Your task to perform on an android device: change notification settings in the gmail app Image 0: 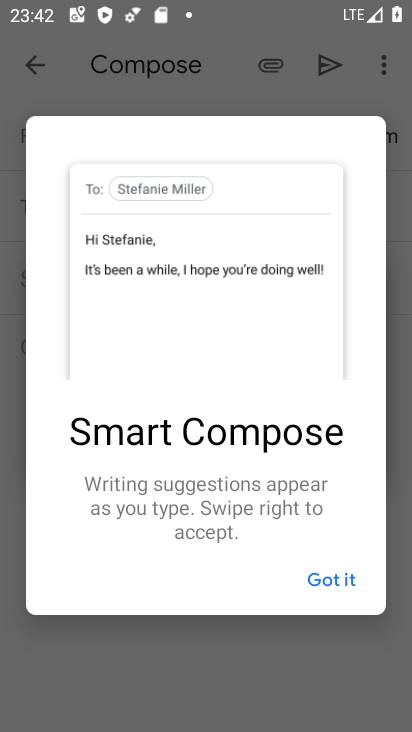
Step 0: press home button
Your task to perform on an android device: change notification settings in the gmail app Image 1: 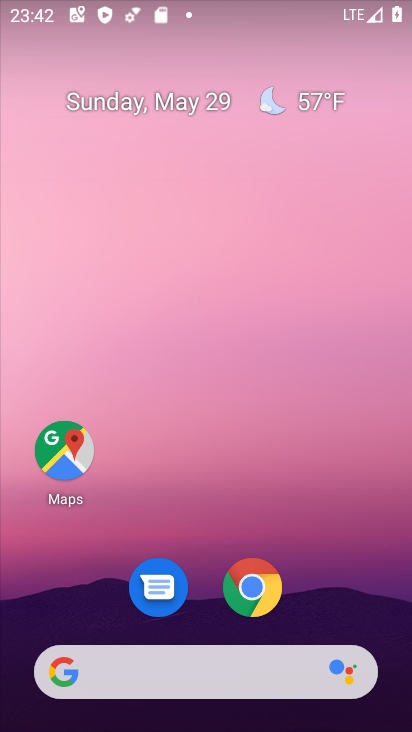
Step 1: drag from (385, 621) to (264, 130)
Your task to perform on an android device: change notification settings in the gmail app Image 2: 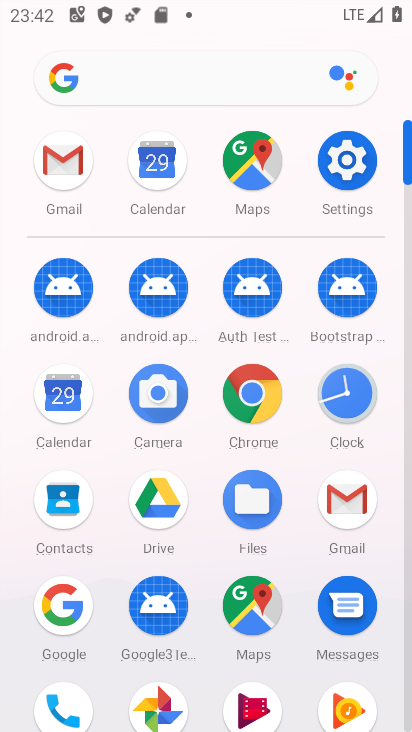
Step 2: click (68, 167)
Your task to perform on an android device: change notification settings in the gmail app Image 3: 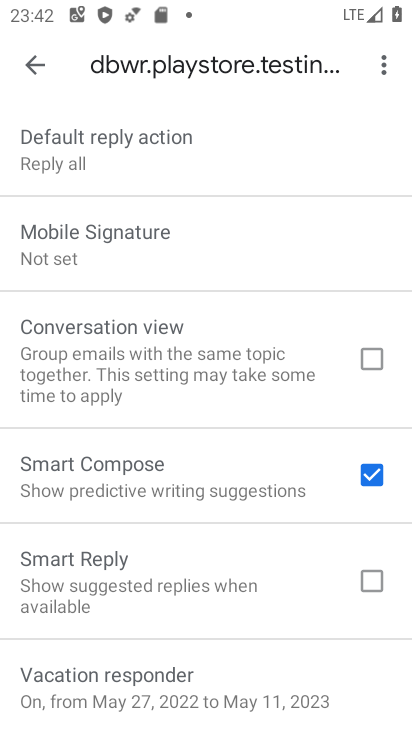
Step 3: drag from (186, 190) to (192, 494)
Your task to perform on an android device: change notification settings in the gmail app Image 4: 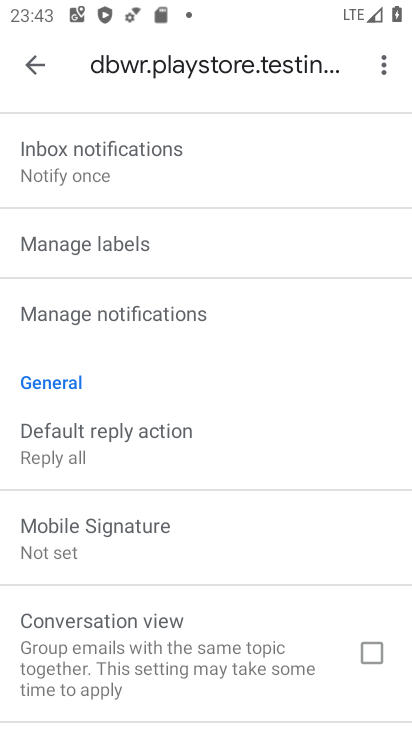
Step 4: click (248, 319)
Your task to perform on an android device: change notification settings in the gmail app Image 5: 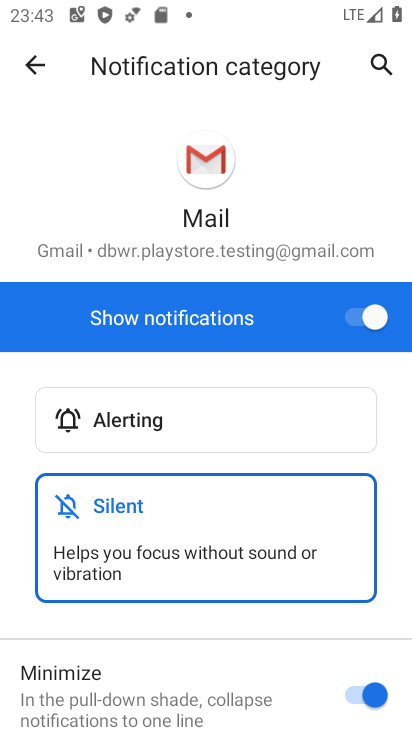
Step 5: drag from (320, 639) to (293, 502)
Your task to perform on an android device: change notification settings in the gmail app Image 6: 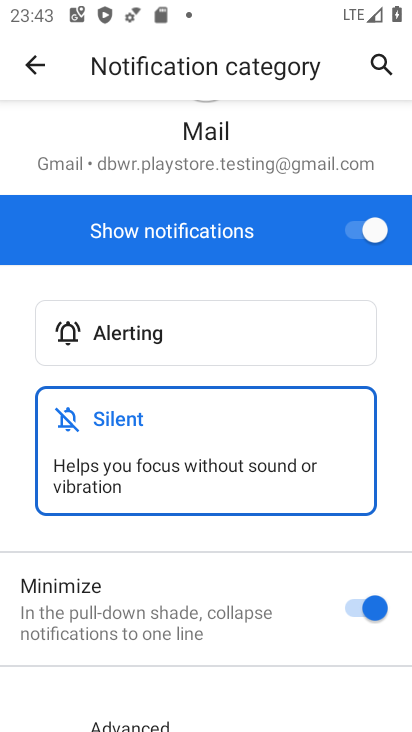
Step 6: click (279, 348)
Your task to perform on an android device: change notification settings in the gmail app Image 7: 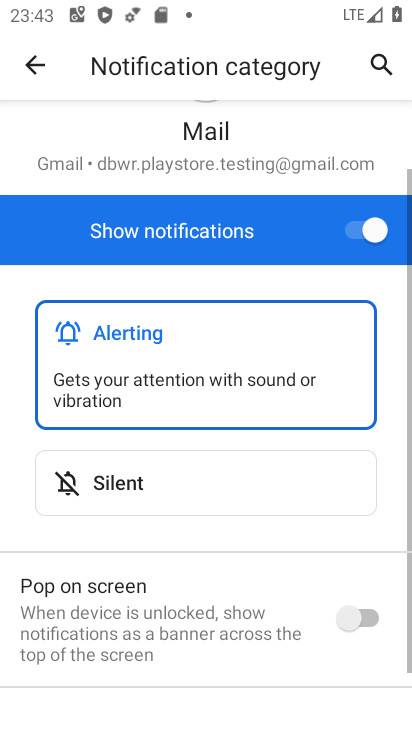
Step 7: click (364, 618)
Your task to perform on an android device: change notification settings in the gmail app Image 8: 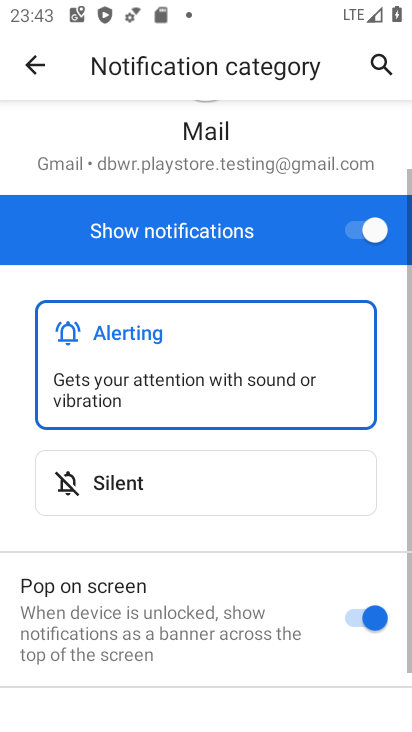
Step 8: task complete